Your task to perform on an android device: Go to wifi settings Image 0: 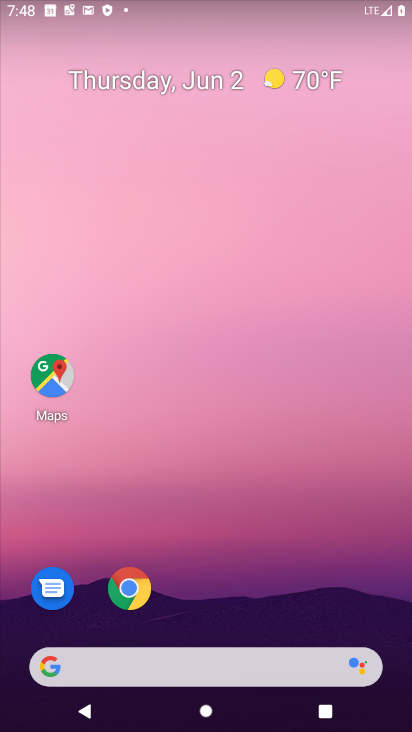
Step 0: drag from (214, 609) to (210, 109)
Your task to perform on an android device: Go to wifi settings Image 1: 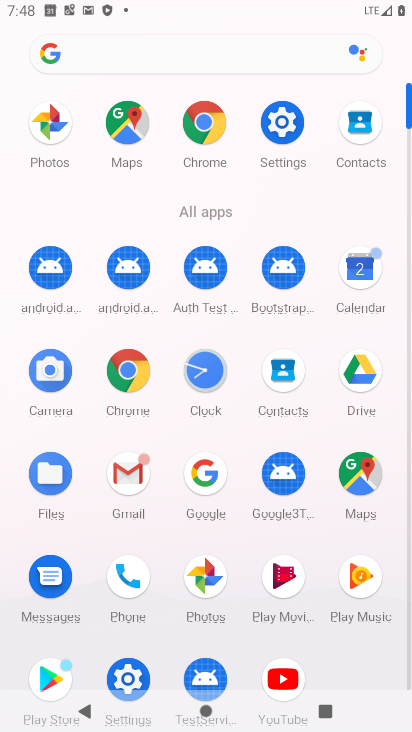
Step 1: click (287, 132)
Your task to perform on an android device: Go to wifi settings Image 2: 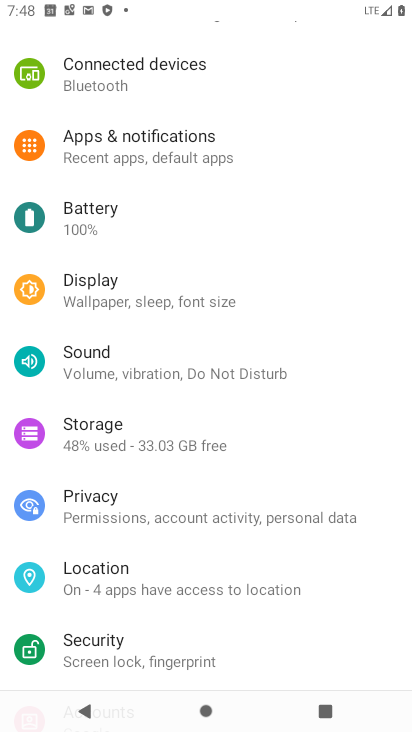
Step 2: drag from (127, 130) to (133, 608)
Your task to perform on an android device: Go to wifi settings Image 3: 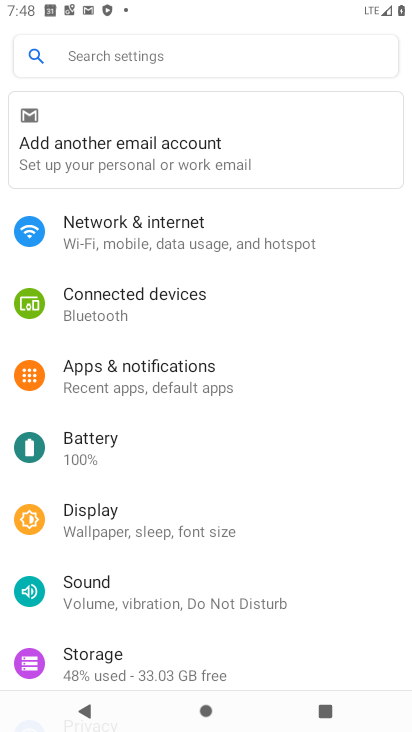
Step 3: click (103, 240)
Your task to perform on an android device: Go to wifi settings Image 4: 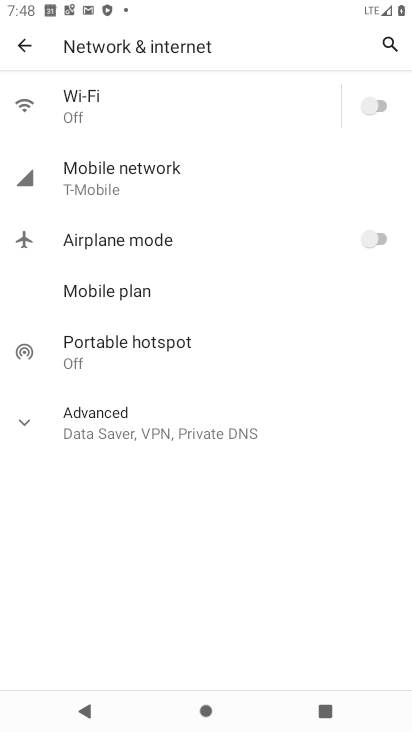
Step 4: click (128, 98)
Your task to perform on an android device: Go to wifi settings Image 5: 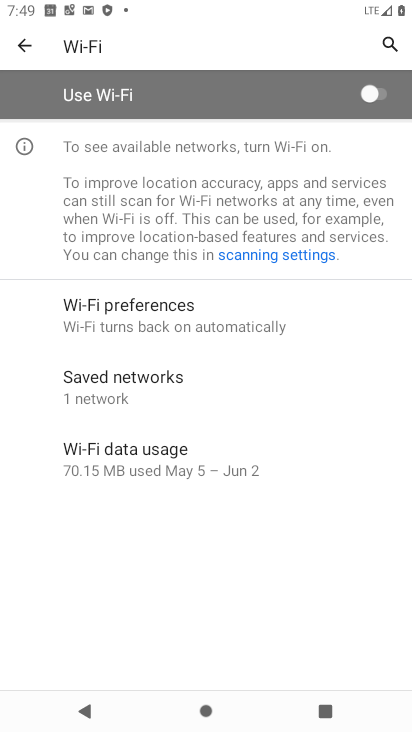
Step 5: task complete